Your task to perform on an android device: change the upload size in google photos Image 0: 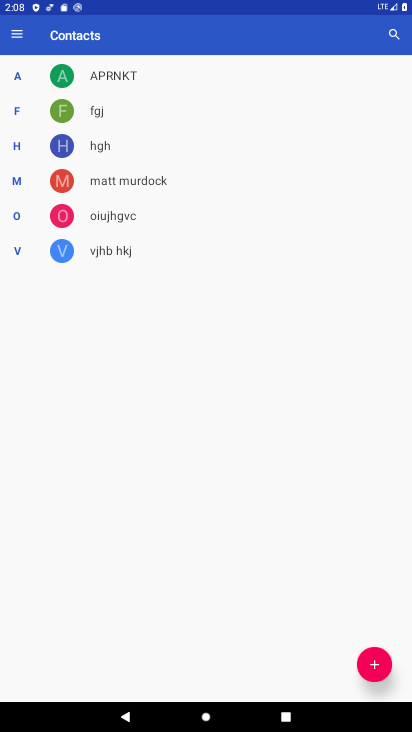
Step 0: press home button
Your task to perform on an android device: change the upload size in google photos Image 1: 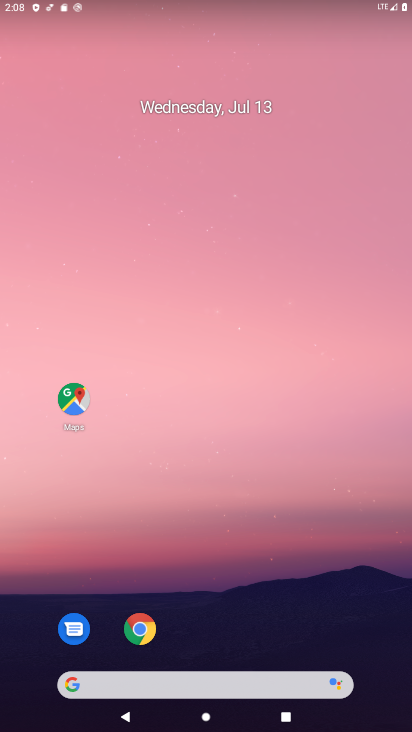
Step 1: drag from (273, 614) to (244, 102)
Your task to perform on an android device: change the upload size in google photos Image 2: 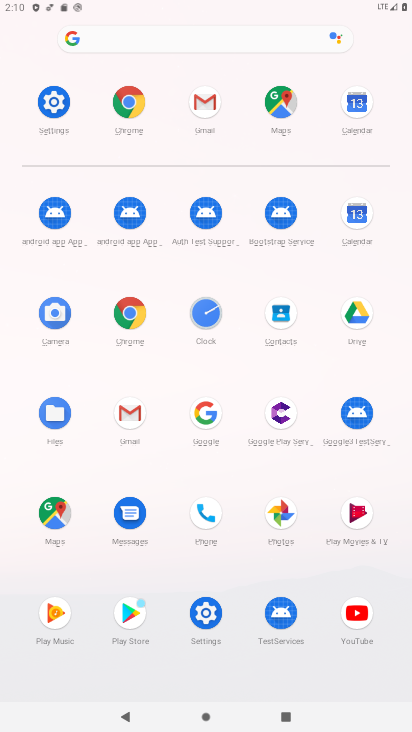
Step 2: click (302, 533)
Your task to perform on an android device: change the upload size in google photos Image 3: 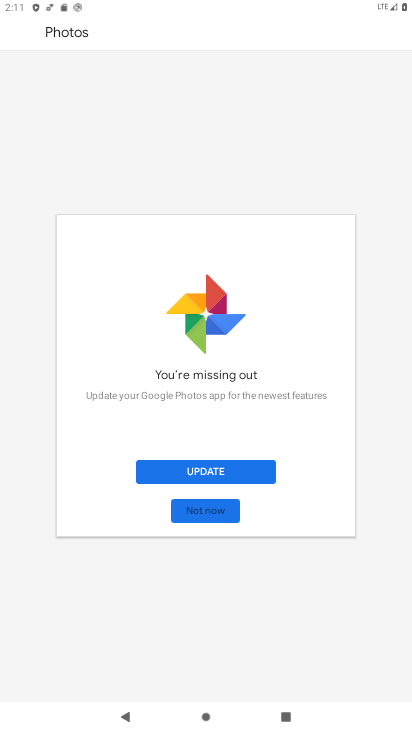
Step 3: click (254, 461)
Your task to perform on an android device: change the upload size in google photos Image 4: 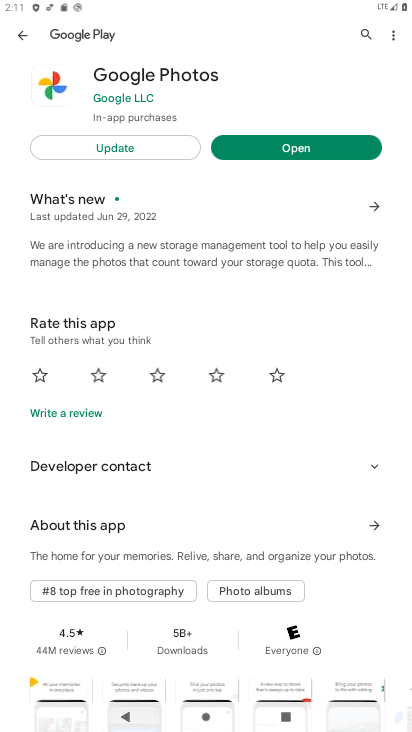
Step 4: click (154, 140)
Your task to perform on an android device: change the upload size in google photos Image 5: 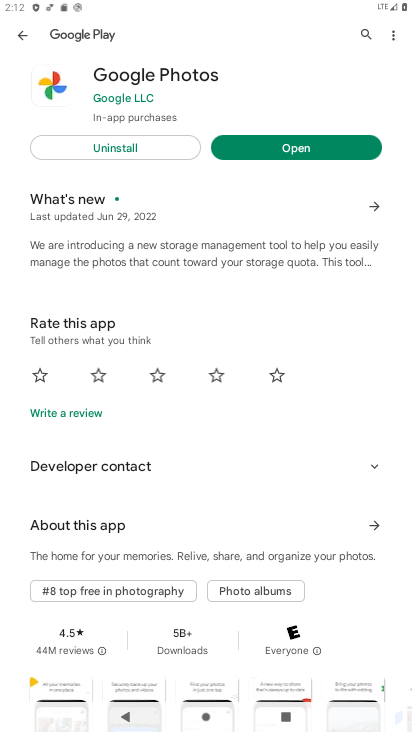
Step 5: click (341, 156)
Your task to perform on an android device: change the upload size in google photos Image 6: 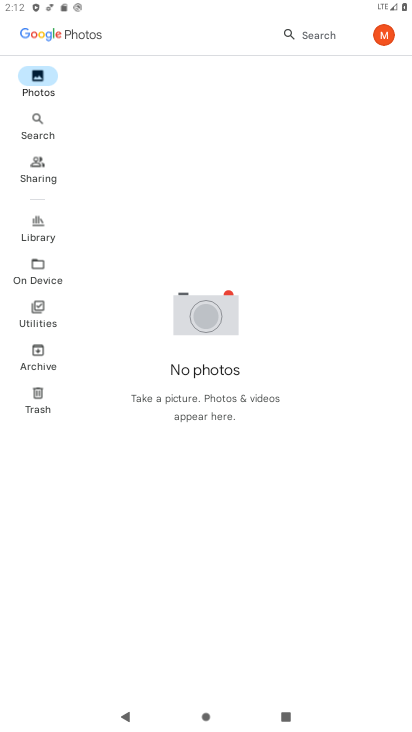
Step 6: task complete